Your task to perform on an android device: set default search engine in the chrome app Image 0: 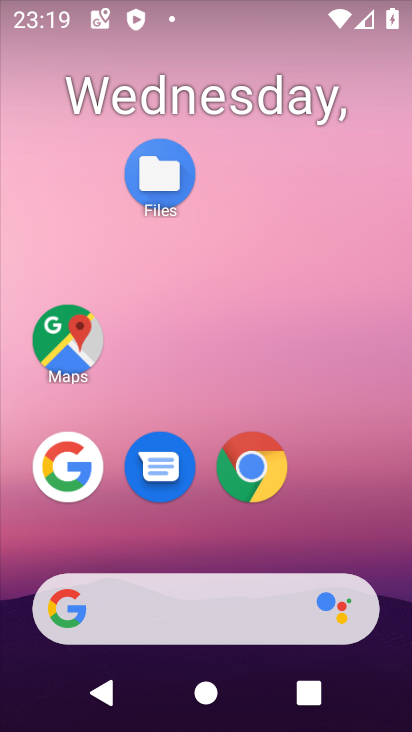
Step 0: click (251, 449)
Your task to perform on an android device: set default search engine in the chrome app Image 1: 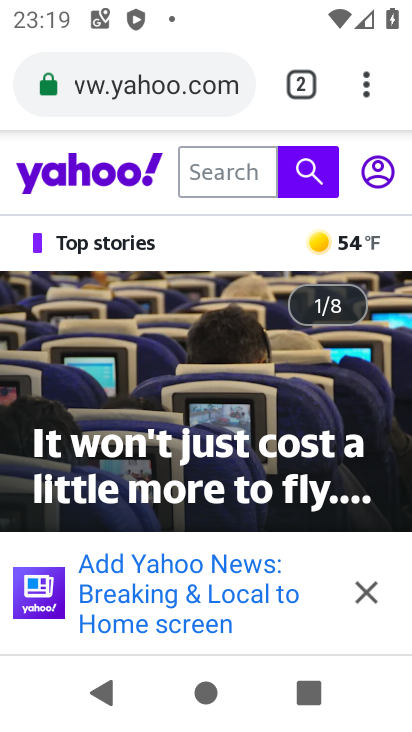
Step 1: click (360, 77)
Your task to perform on an android device: set default search engine in the chrome app Image 2: 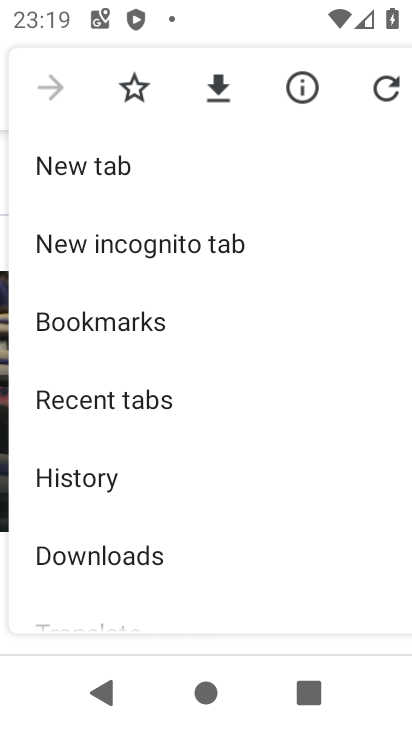
Step 2: drag from (98, 572) to (90, 270)
Your task to perform on an android device: set default search engine in the chrome app Image 3: 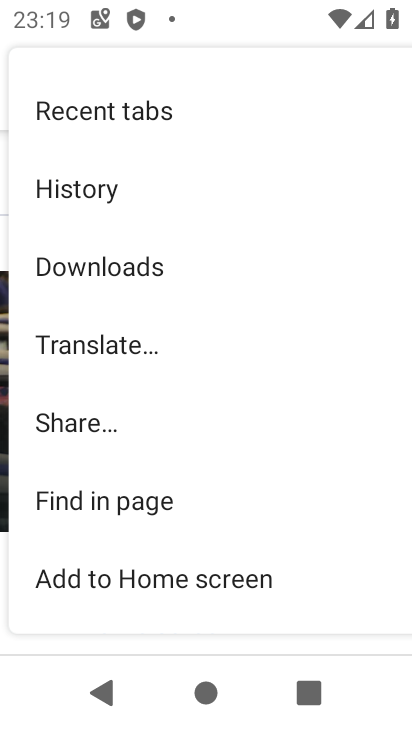
Step 3: drag from (96, 586) to (84, 429)
Your task to perform on an android device: set default search engine in the chrome app Image 4: 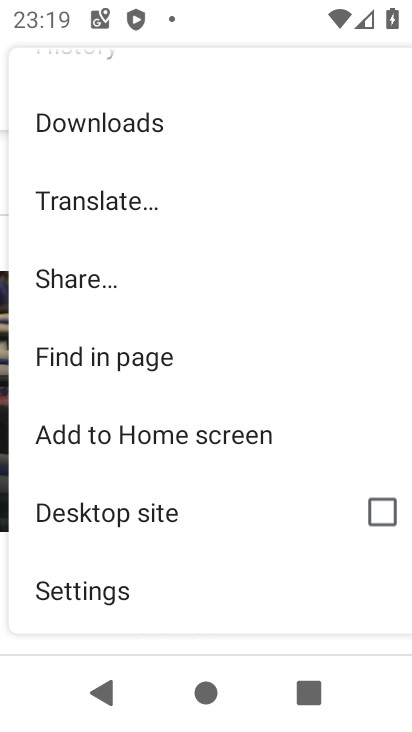
Step 4: click (85, 612)
Your task to perform on an android device: set default search engine in the chrome app Image 5: 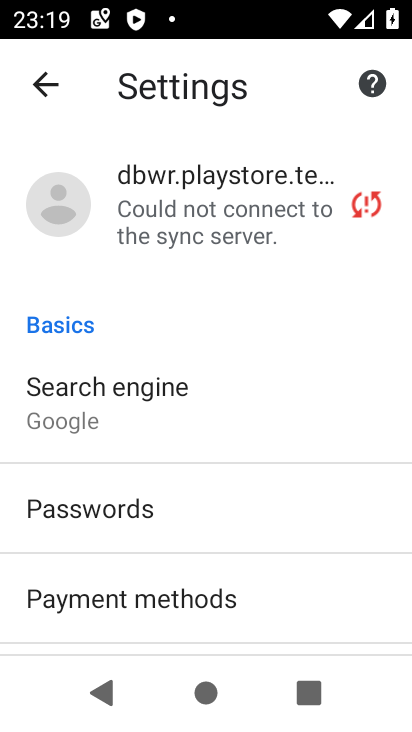
Step 5: click (59, 438)
Your task to perform on an android device: set default search engine in the chrome app Image 6: 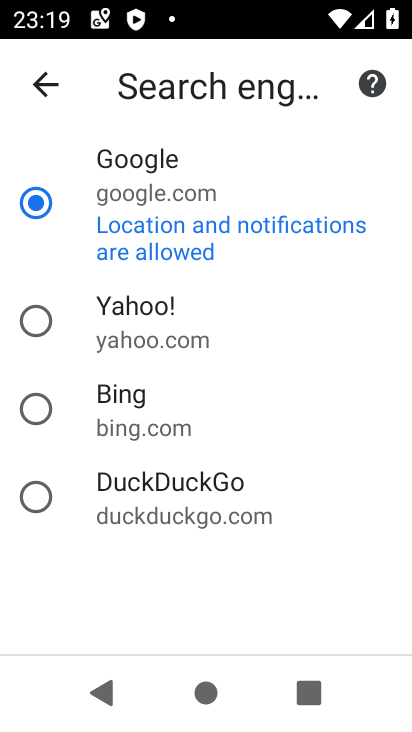
Step 6: click (53, 202)
Your task to perform on an android device: set default search engine in the chrome app Image 7: 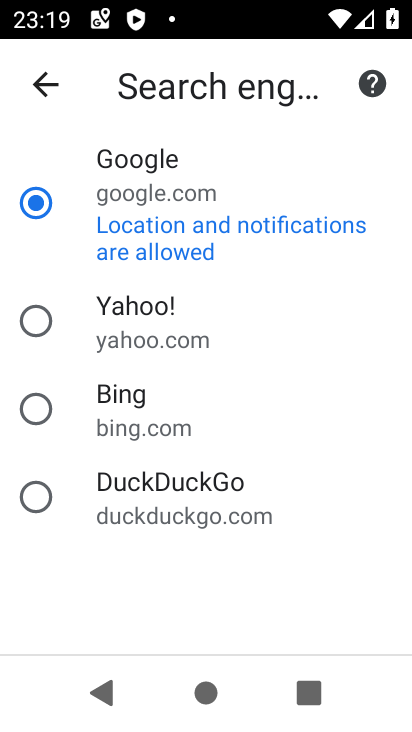
Step 7: task complete